Your task to perform on an android device: Open Google Image 0: 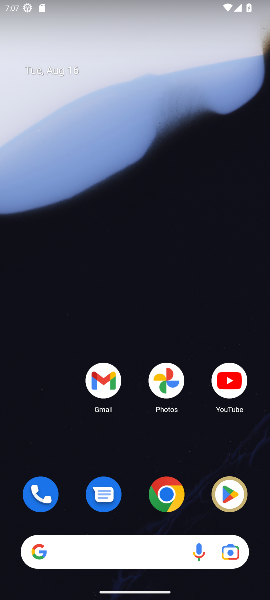
Step 0: click (159, 543)
Your task to perform on an android device: Open Google Image 1: 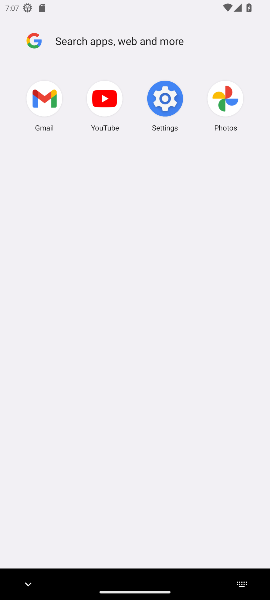
Step 1: task complete